Your task to perform on an android device: Search for "duracell triple a" on newegg.com, select the first entry, and add it to the cart. Image 0: 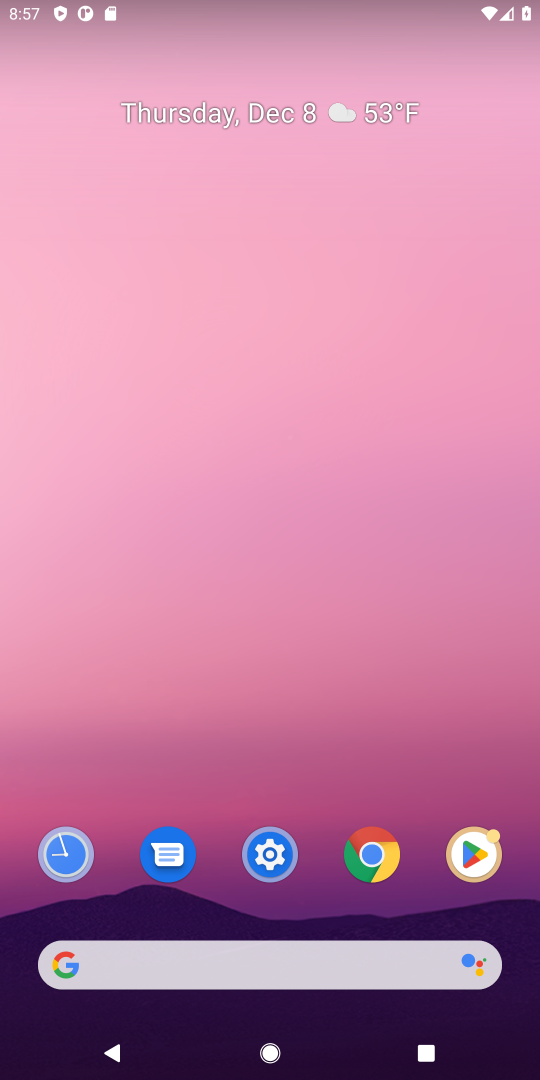
Step 0: press home button
Your task to perform on an android device: Search for "duracell triple a" on newegg.com, select the first entry, and add it to the cart. Image 1: 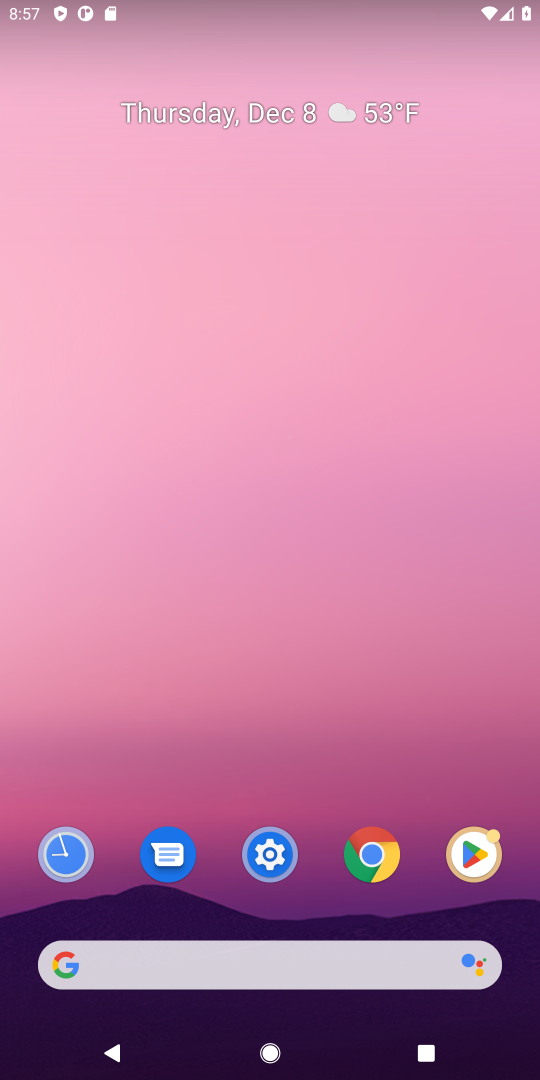
Step 1: click (94, 967)
Your task to perform on an android device: Search for "duracell triple a" on newegg.com, select the first entry, and add it to the cart. Image 2: 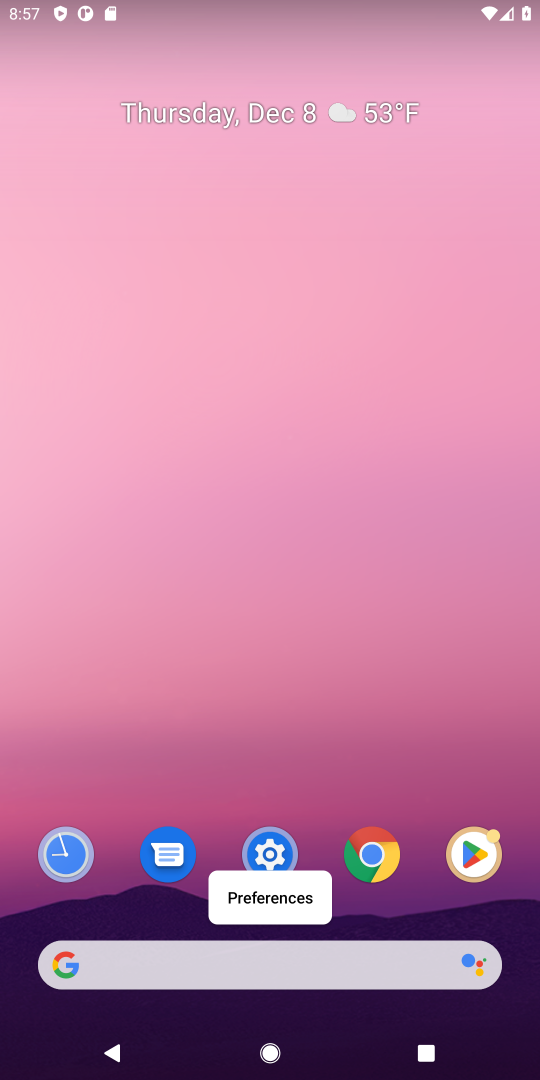
Step 2: click (88, 954)
Your task to perform on an android device: Search for "duracell triple a" on newegg.com, select the first entry, and add it to the cart. Image 3: 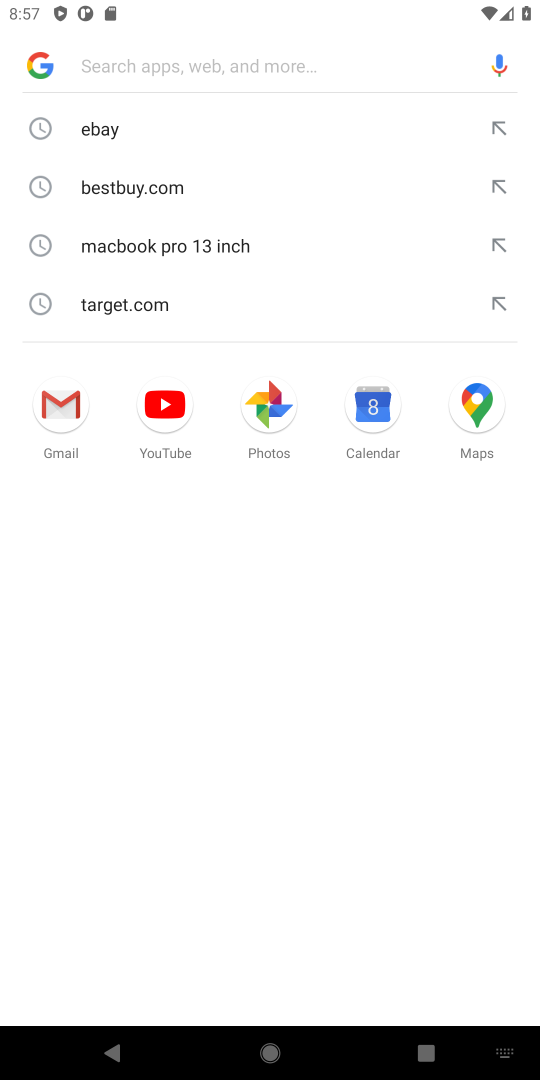
Step 3: type "newegg.com"
Your task to perform on an android device: Search for "duracell triple a" on newegg.com, select the first entry, and add it to the cart. Image 4: 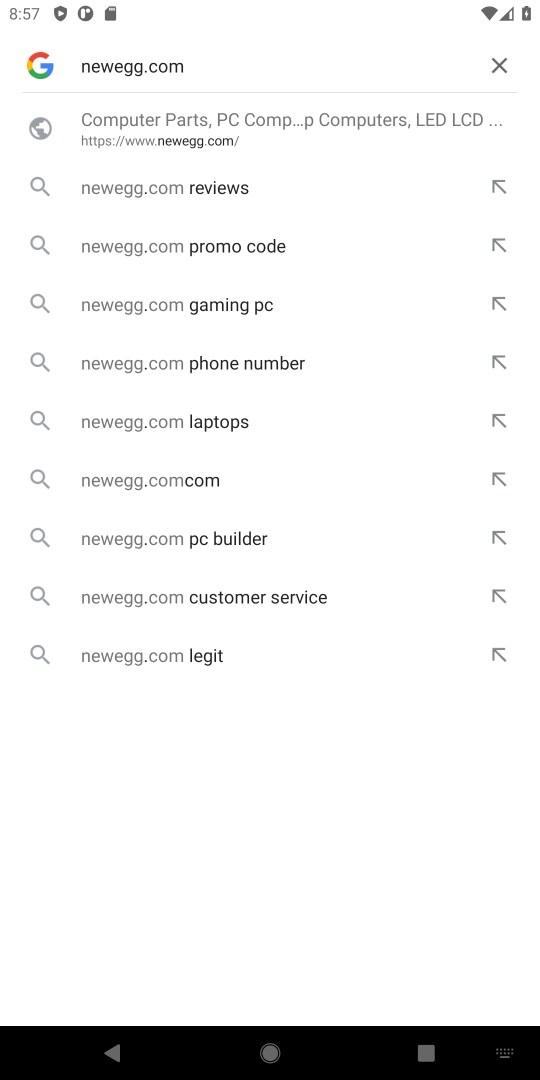
Step 4: press enter
Your task to perform on an android device: Search for "duracell triple a" on newegg.com, select the first entry, and add it to the cart. Image 5: 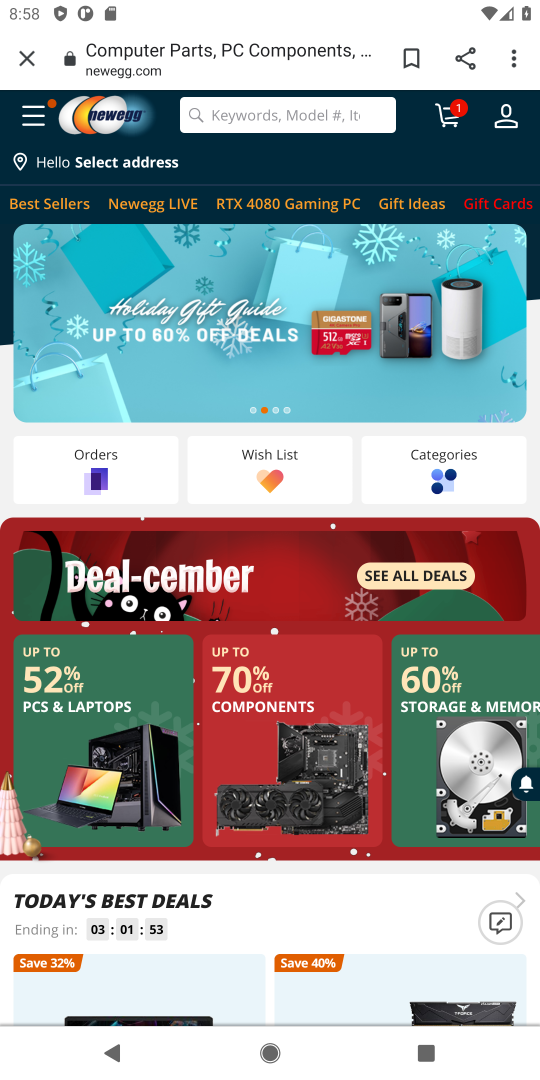
Step 5: click (212, 109)
Your task to perform on an android device: Search for "duracell triple a" on newegg.com, select the first entry, and add it to the cart. Image 6: 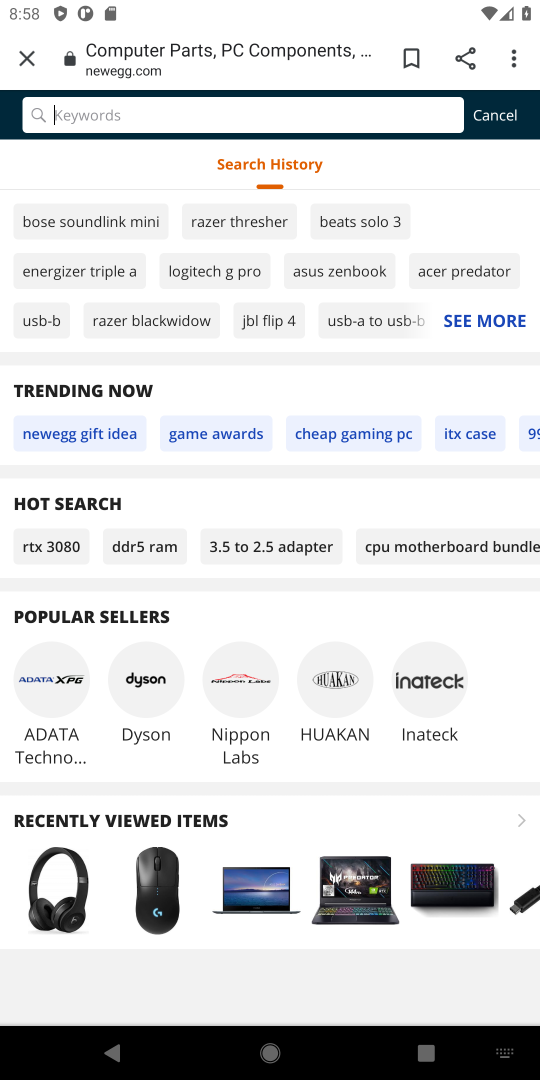
Step 6: type "duracell triple a"
Your task to perform on an android device: Search for "duracell triple a" on newegg.com, select the first entry, and add it to the cart. Image 7: 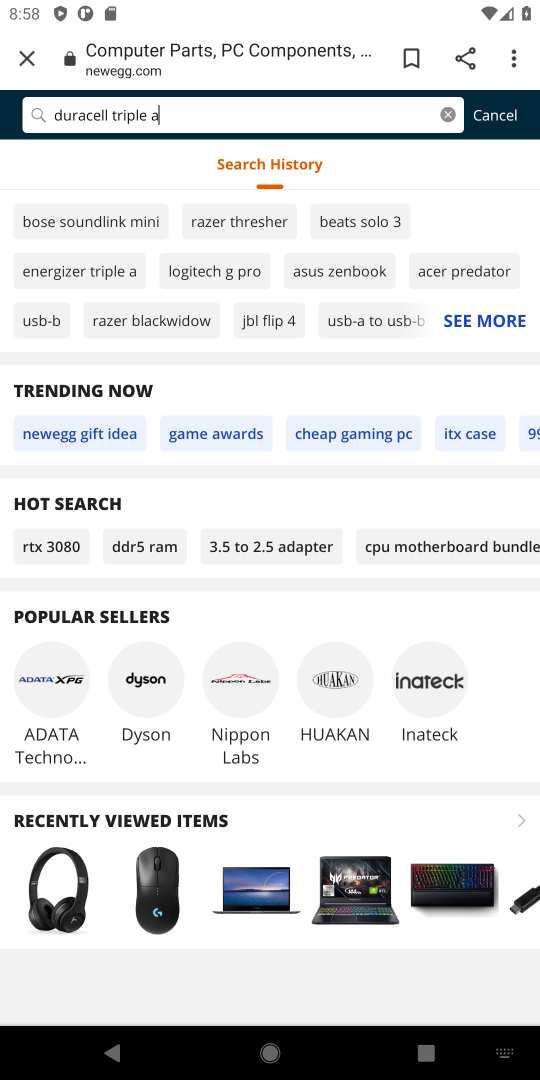
Step 7: press enter
Your task to perform on an android device: Search for "duracell triple a" on newegg.com, select the first entry, and add it to the cart. Image 8: 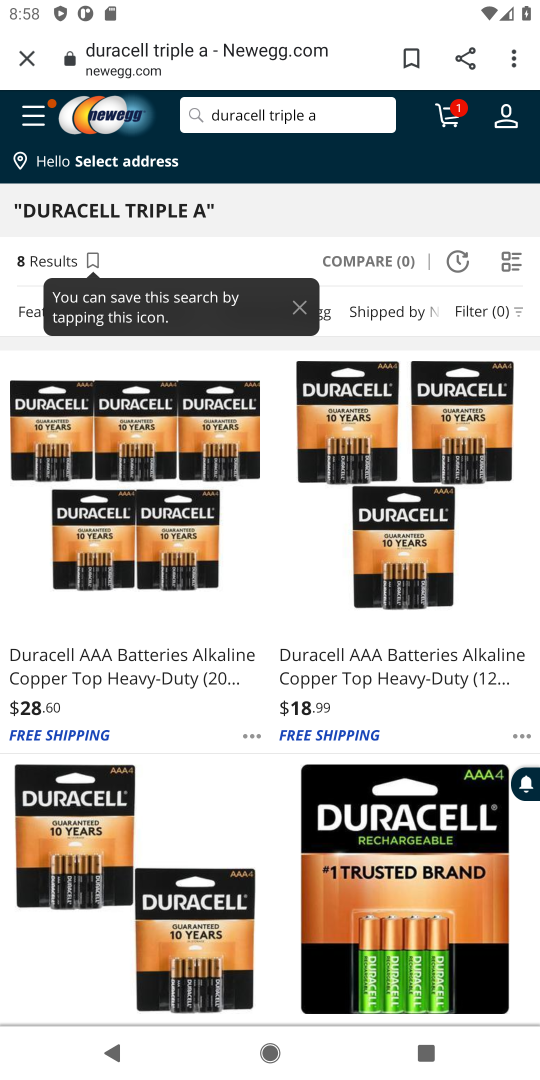
Step 8: click (119, 664)
Your task to perform on an android device: Search for "duracell triple a" on newegg.com, select the first entry, and add it to the cart. Image 9: 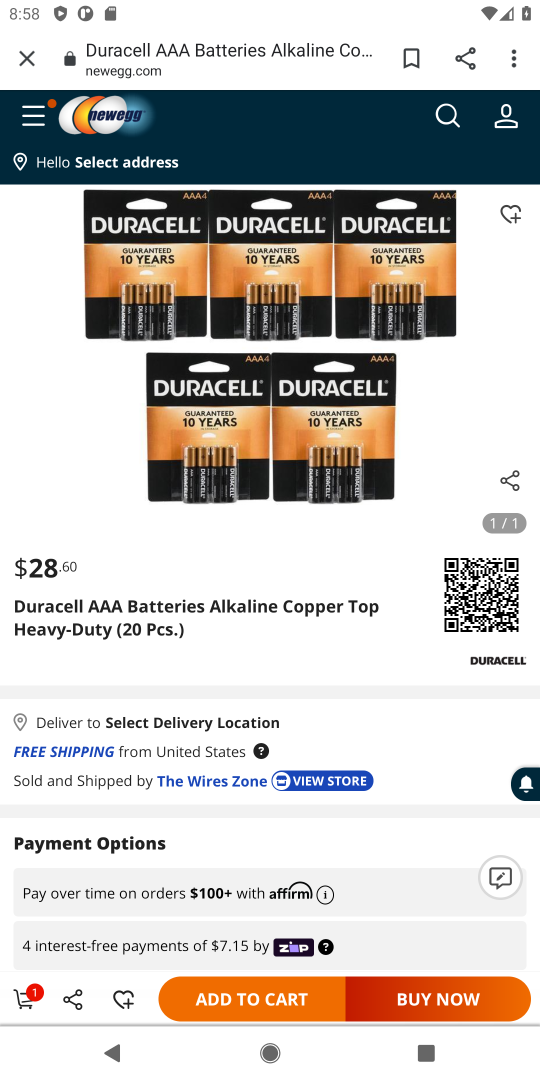
Step 9: click (230, 1006)
Your task to perform on an android device: Search for "duracell triple a" on newegg.com, select the first entry, and add it to the cart. Image 10: 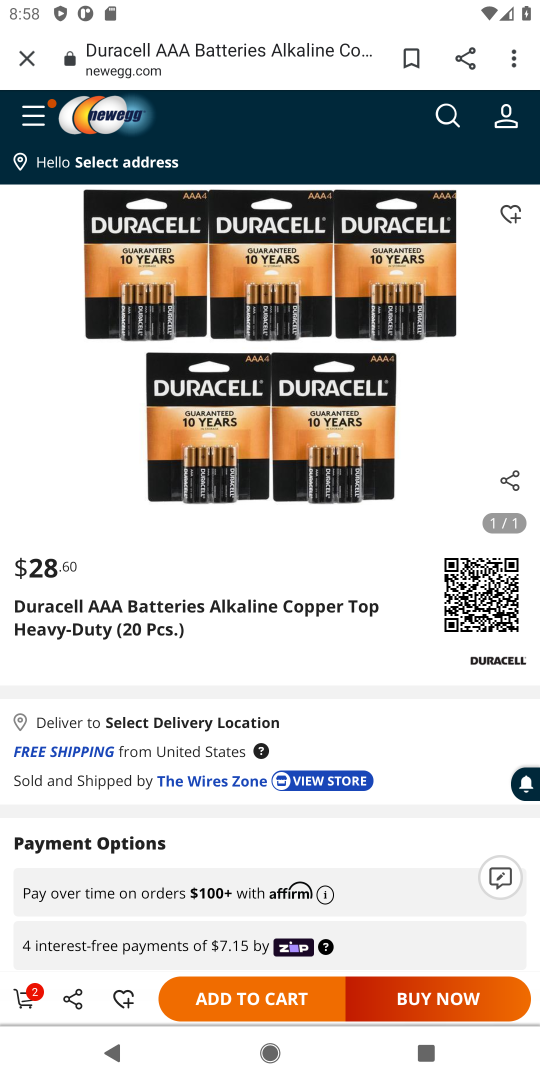
Step 10: task complete